Your task to perform on an android device: Open accessibility settings Image 0: 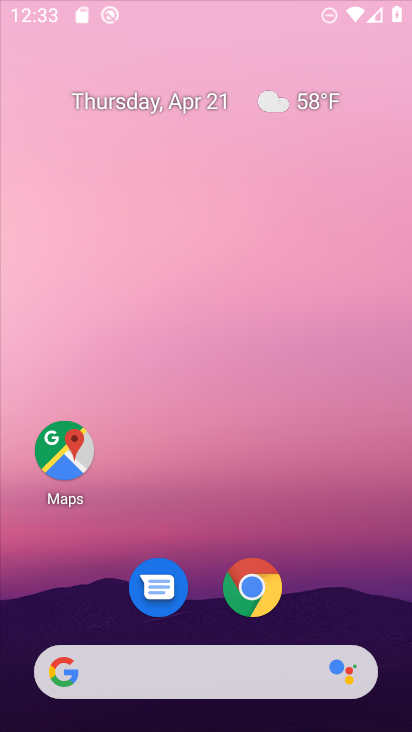
Step 0: click (271, 362)
Your task to perform on an android device: Open accessibility settings Image 1: 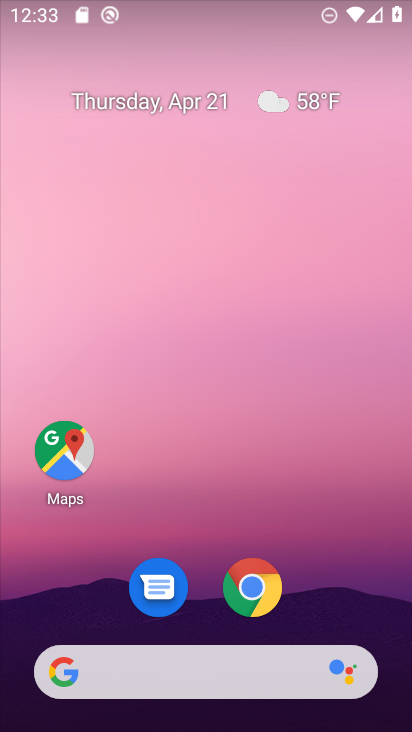
Step 1: drag from (195, 605) to (409, 83)
Your task to perform on an android device: Open accessibility settings Image 2: 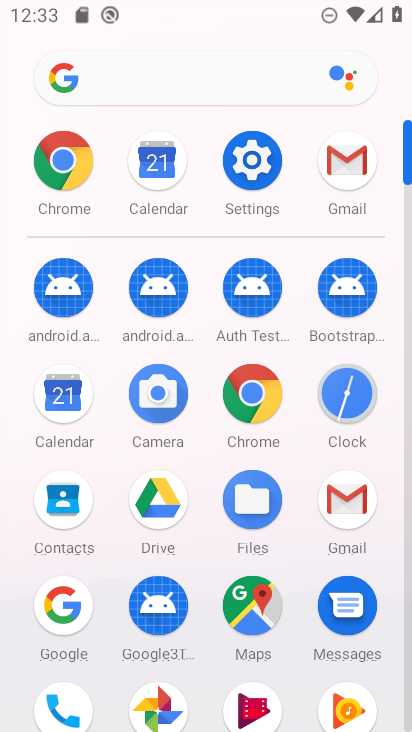
Step 2: click (246, 189)
Your task to perform on an android device: Open accessibility settings Image 3: 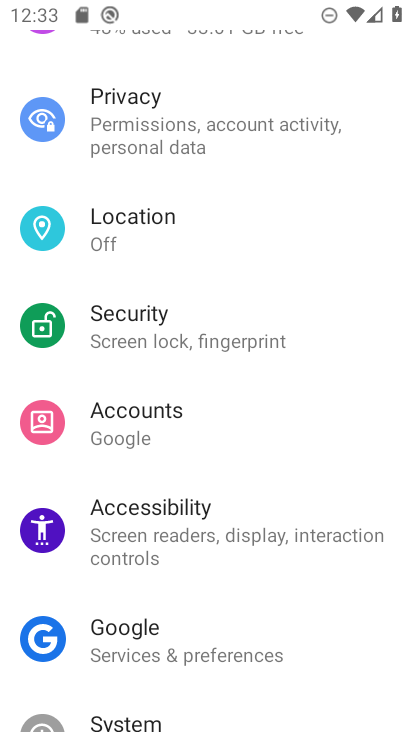
Step 3: click (147, 540)
Your task to perform on an android device: Open accessibility settings Image 4: 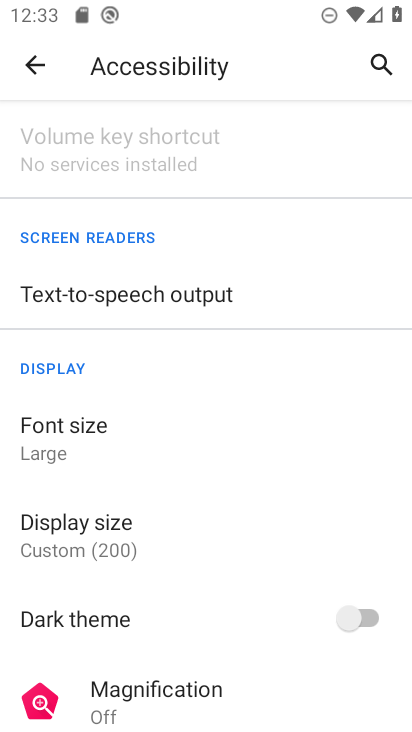
Step 4: task complete